Your task to perform on an android device: Check the weather Image 0: 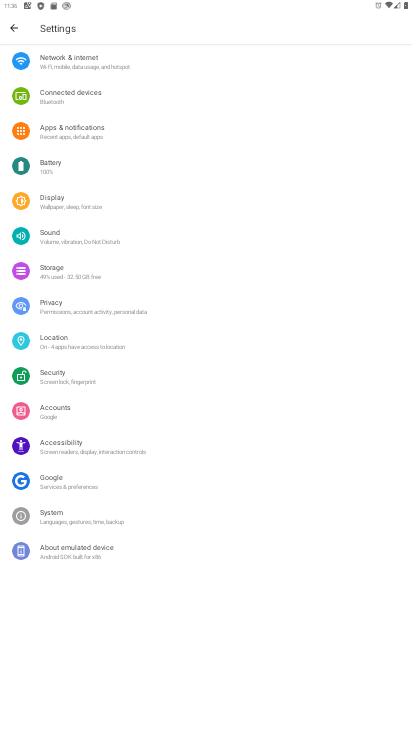
Step 0: press home button
Your task to perform on an android device: Check the weather Image 1: 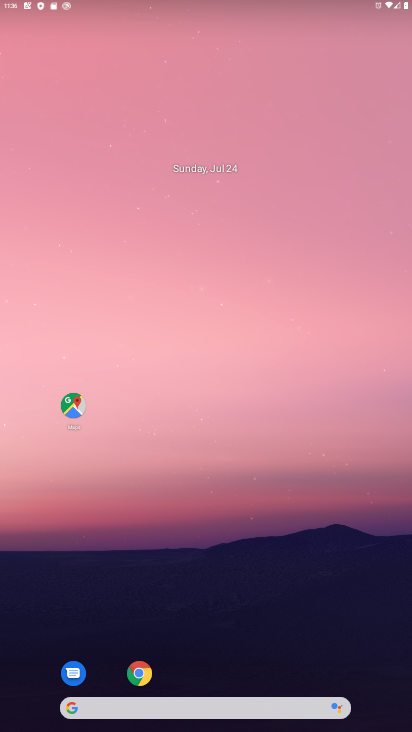
Step 1: drag from (257, 658) to (241, 0)
Your task to perform on an android device: Check the weather Image 2: 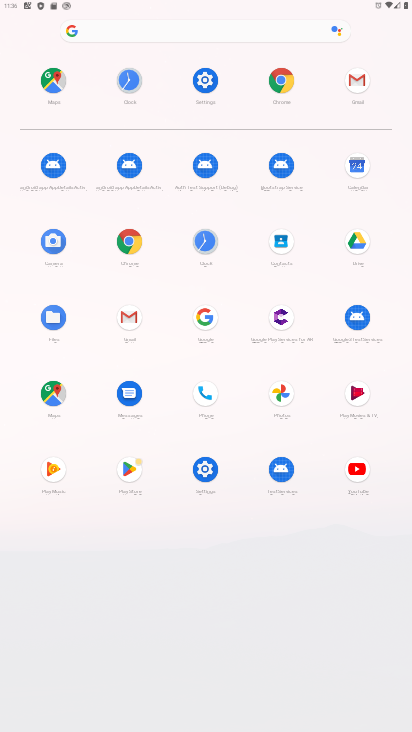
Step 2: click (130, 238)
Your task to perform on an android device: Check the weather Image 3: 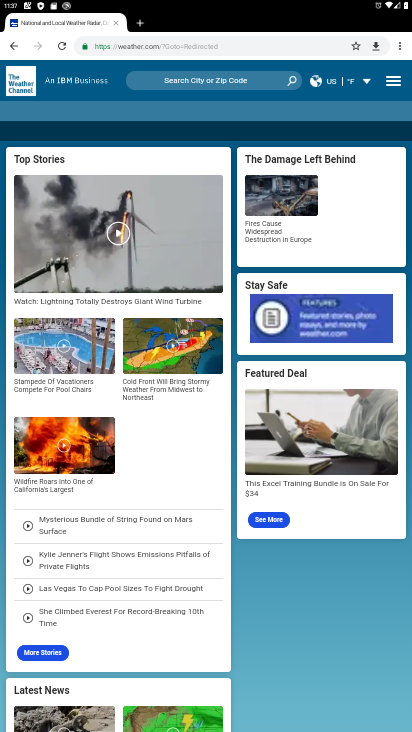
Step 3: click (194, 49)
Your task to perform on an android device: Check the weather Image 4: 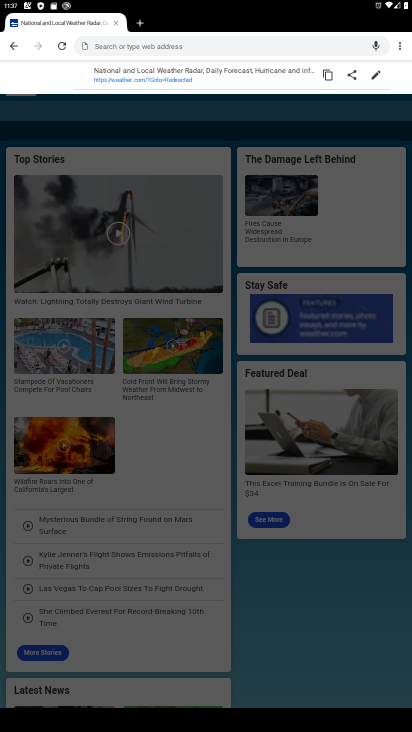
Step 4: type "weather"
Your task to perform on an android device: Check the weather Image 5: 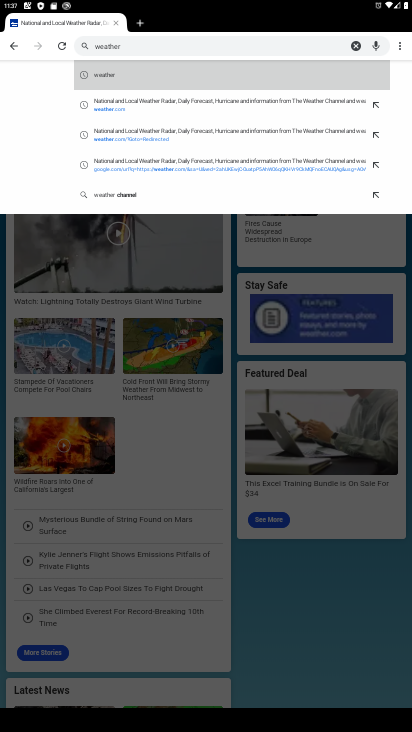
Step 5: click (160, 71)
Your task to perform on an android device: Check the weather Image 6: 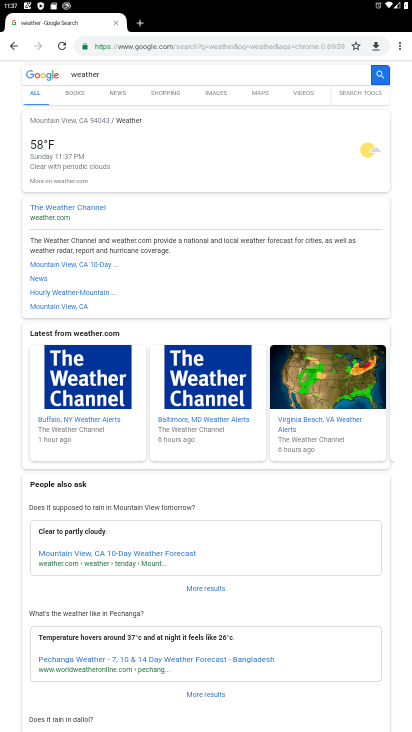
Step 6: task complete